Your task to perform on an android device: Show me the alarms in the clock app Image 0: 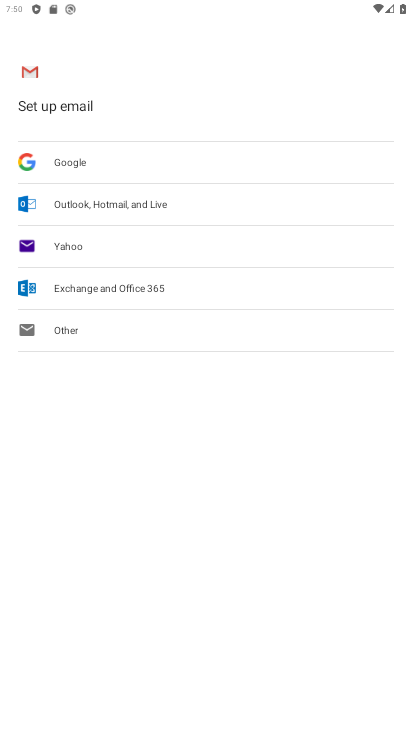
Step 0: press home button
Your task to perform on an android device: Show me the alarms in the clock app Image 1: 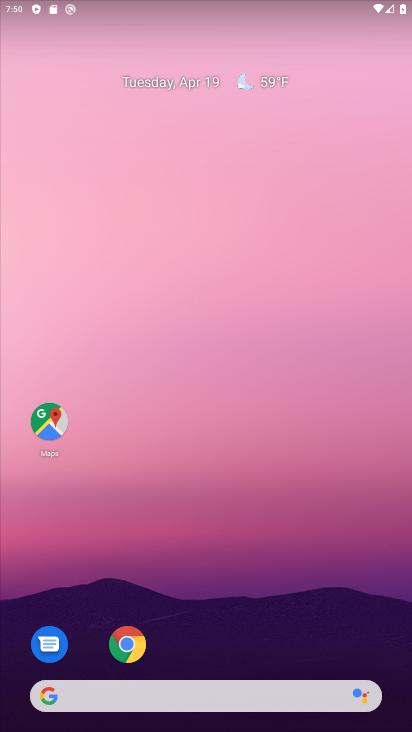
Step 1: drag from (210, 630) to (272, 284)
Your task to perform on an android device: Show me the alarms in the clock app Image 2: 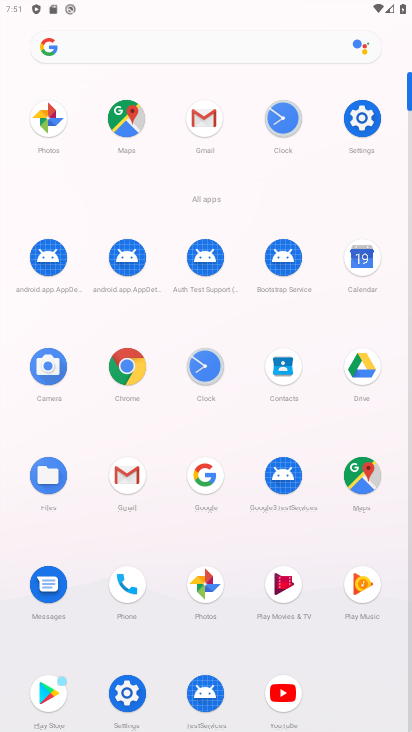
Step 2: click (206, 364)
Your task to perform on an android device: Show me the alarms in the clock app Image 3: 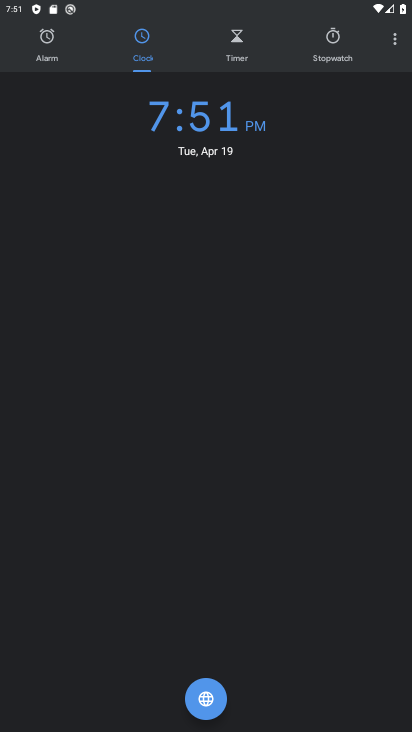
Step 3: click (55, 36)
Your task to perform on an android device: Show me the alarms in the clock app Image 4: 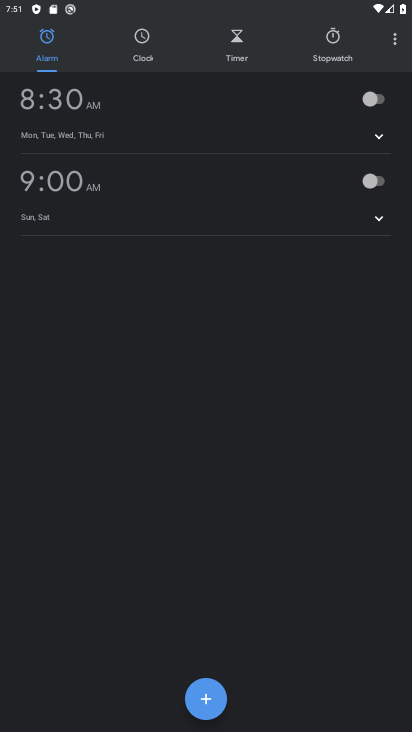
Step 4: task complete